Your task to perform on an android device: What's the weather going to be this weekend? Image 0: 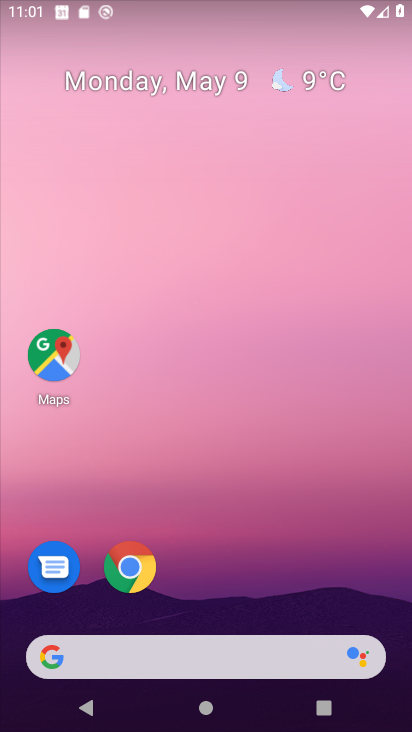
Step 0: drag from (216, 620) to (219, 1)
Your task to perform on an android device: What's the weather going to be this weekend? Image 1: 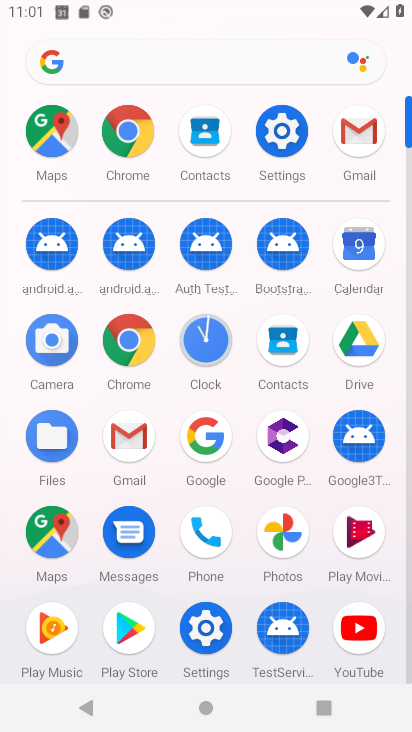
Step 1: press back button
Your task to perform on an android device: What's the weather going to be this weekend? Image 2: 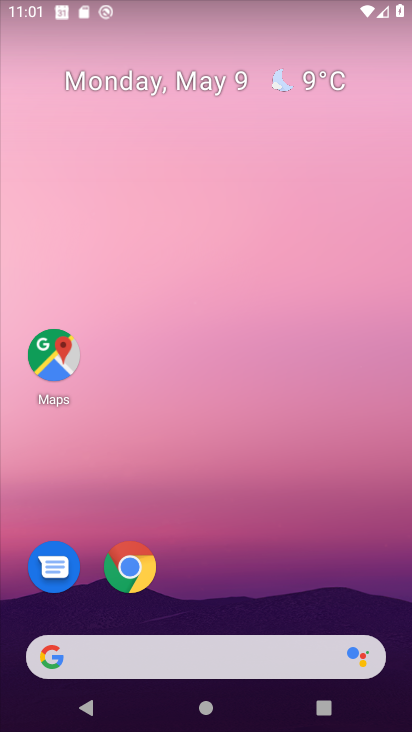
Step 2: click (313, 76)
Your task to perform on an android device: What's the weather going to be this weekend? Image 3: 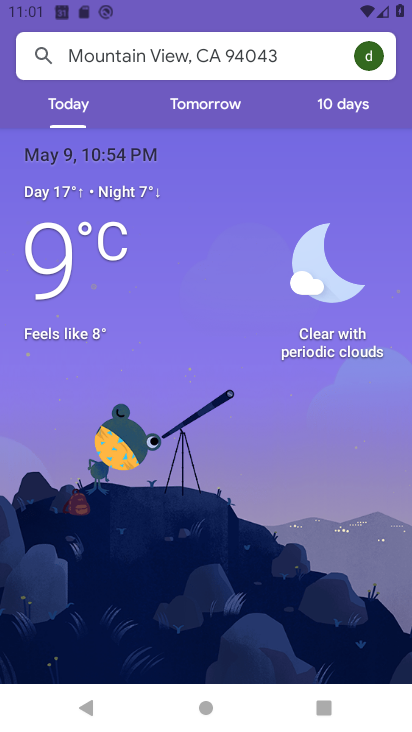
Step 3: click (354, 108)
Your task to perform on an android device: What's the weather going to be this weekend? Image 4: 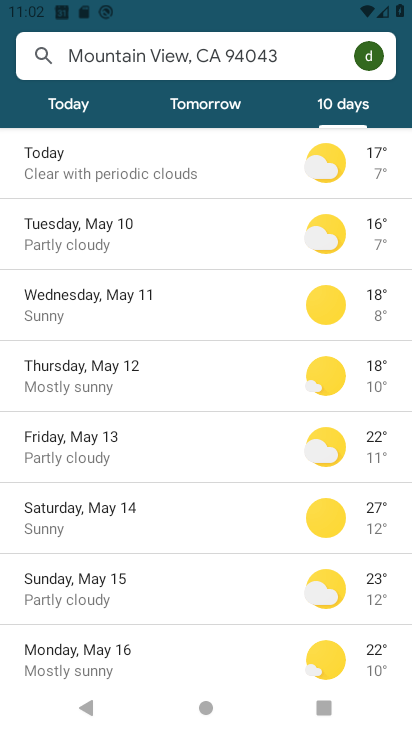
Step 4: task complete